Your task to perform on an android device: turn off location Image 0: 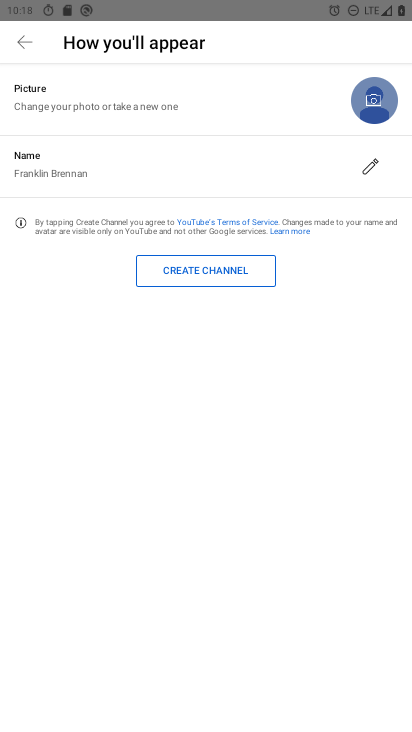
Step 0: press home button
Your task to perform on an android device: turn off location Image 1: 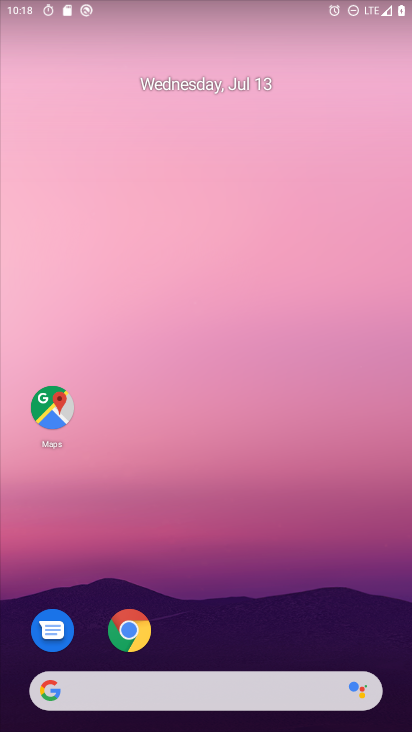
Step 1: drag from (389, 622) to (201, 22)
Your task to perform on an android device: turn off location Image 2: 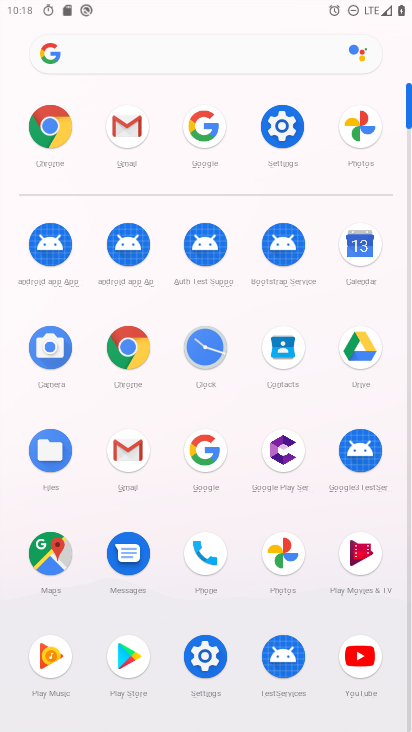
Step 2: click (201, 649)
Your task to perform on an android device: turn off location Image 3: 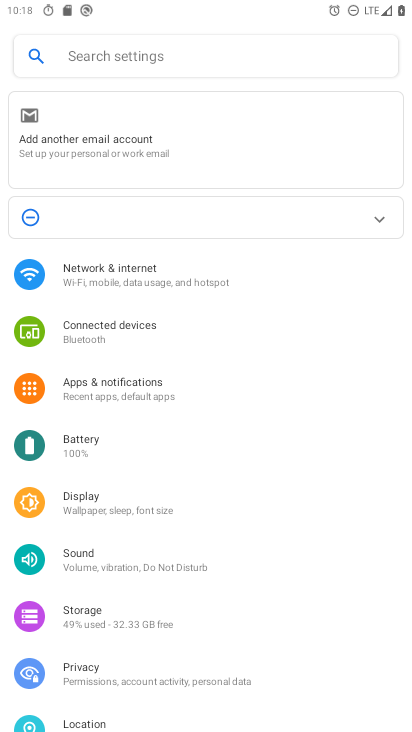
Step 3: click (99, 719)
Your task to perform on an android device: turn off location Image 4: 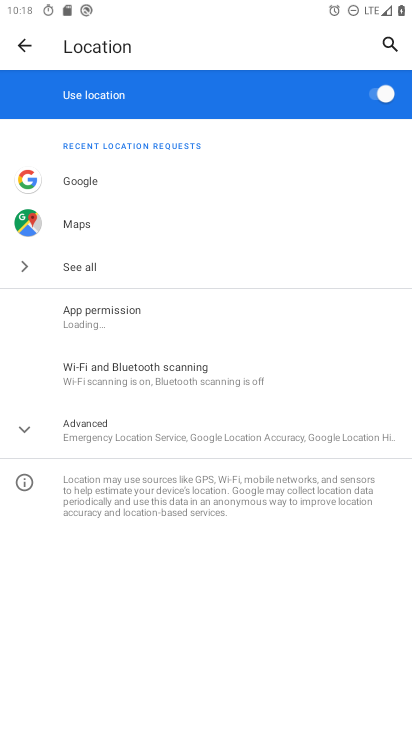
Step 4: click (374, 96)
Your task to perform on an android device: turn off location Image 5: 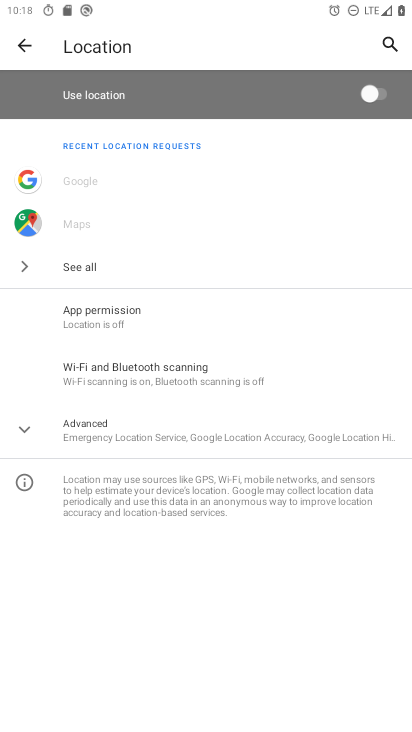
Step 5: task complete